Your task to perform on an android device: Is it going to rain this weekend? Image 0: 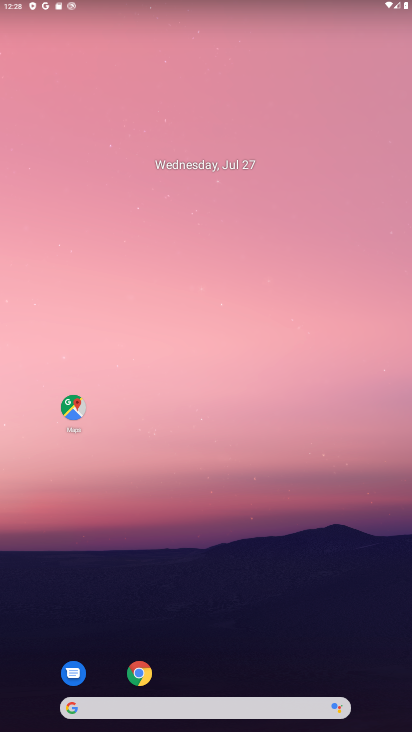
Step 0: click (106, 709)
Your task to perform on an android device: Is it going to rain this weekend? Image 1: 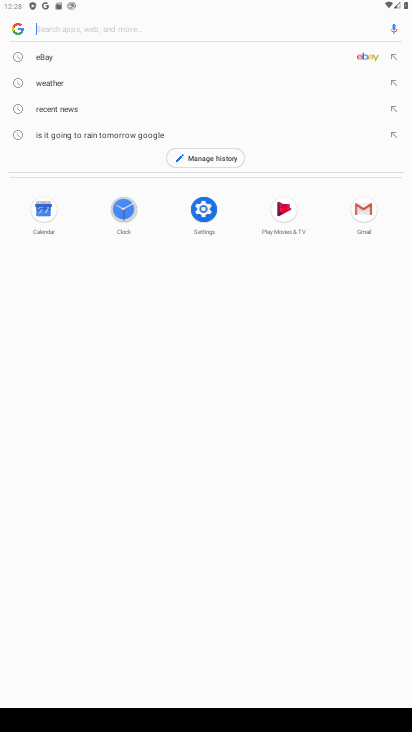
Step 1: click (50, 89)
Your task to perform on an android device: Is it going to rain this weekend? Image 2: 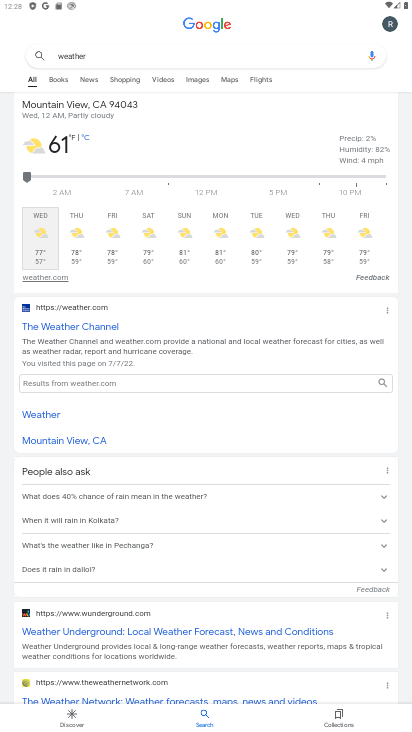
Step 2: drag from (368, 263) to (185, 274)
Your task to perform on an android device: Is it going to rain this weekend? Image 3: 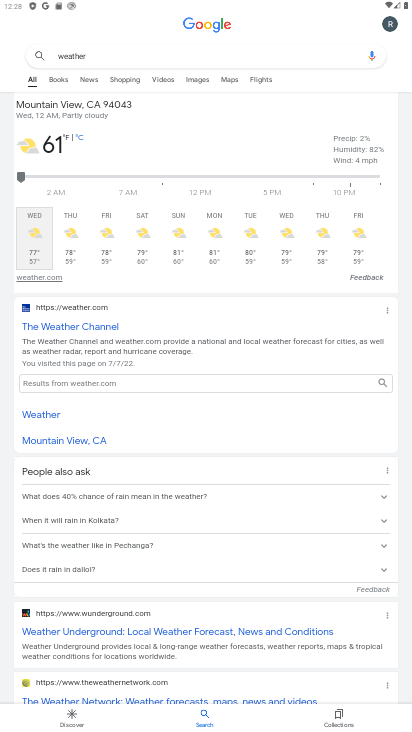
Step 3: drag from (348, 239) to (0, 189)
Your task to perform on an android device: Is it going to rain this weekend? Image 4: 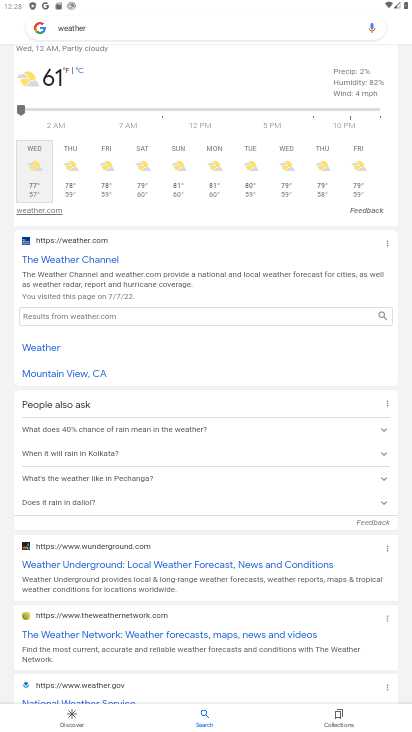
Step 4: click (23, 178)
Your task to perform on an android device: Is it going to rain this weekend? Image 5: 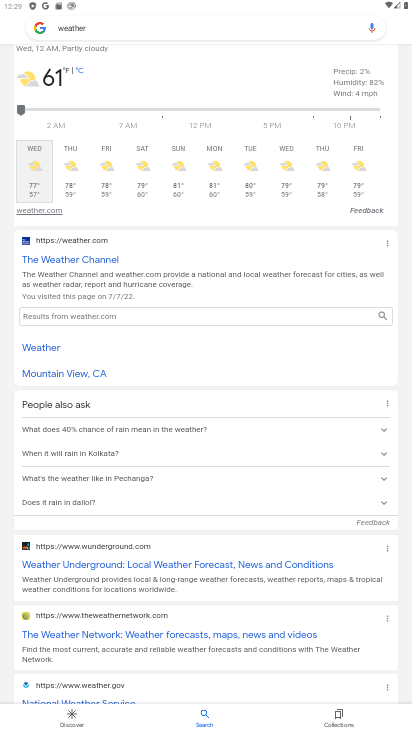
Step 5: drag from (20, 108) to (86, 109)
Your task to perform on an android device: Is it going to rain this weekend? Image 6: 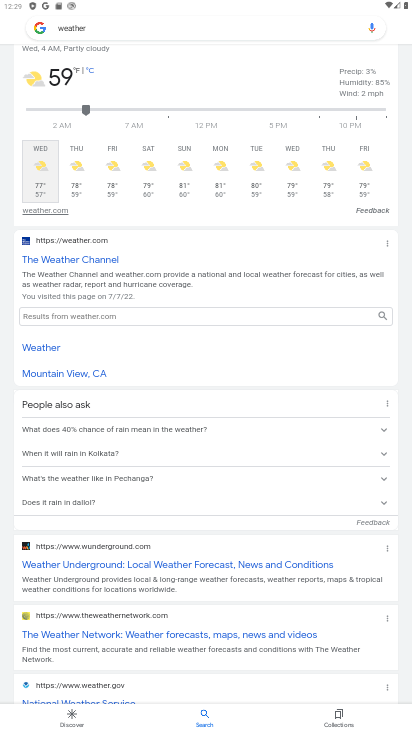
Step 6: drag from (86, 109) to (142, 126)
Your task to perform on an android device: Is it going to rain this weekend? Image 7: 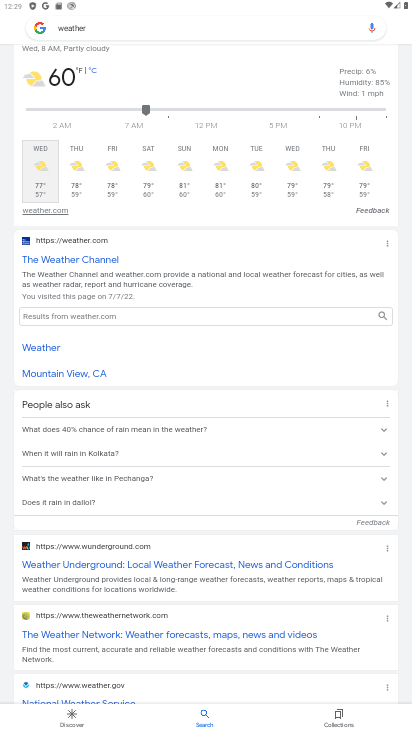
Step 7: click (148, 182)
Your task to perform on an android device: Is it going to rain this weekend? Image 8: 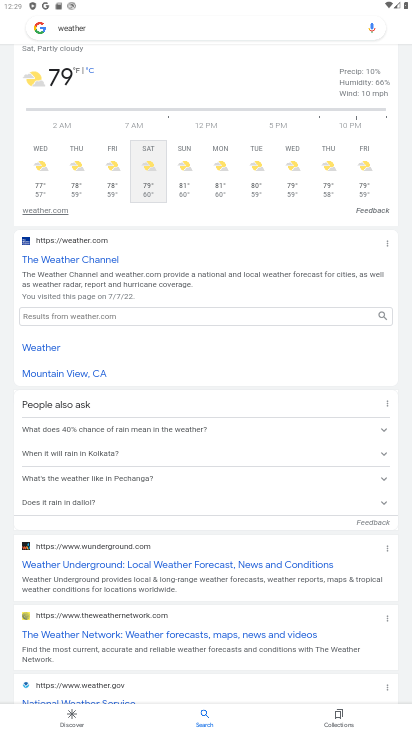
Step 8: task complete